Your task to perform on an android device: change the clock display to digital Image 0: 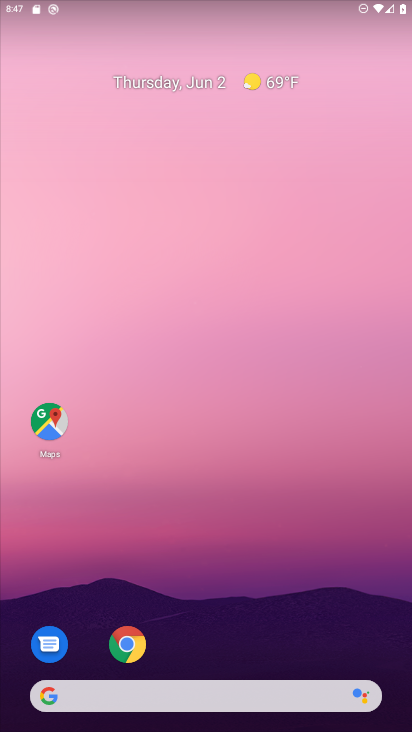
Step 0: drag from (262, 557) to (125, 15)
Your task to perform on an android device: change the clock display to digital Image 1: 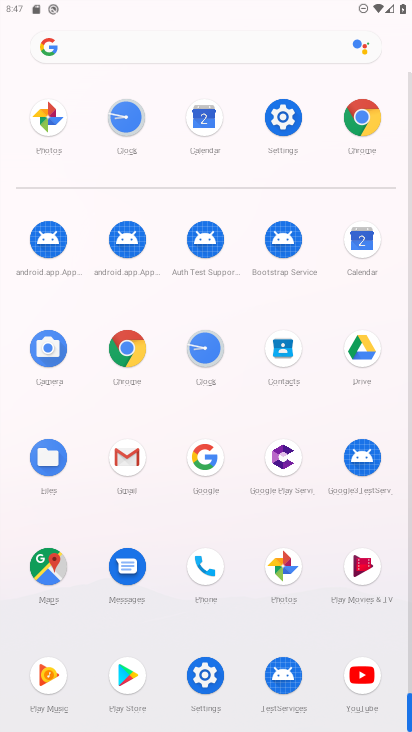
Step 1: click (206, 344)
Your task to perform on an android device: change the clock display to digital Image 2: 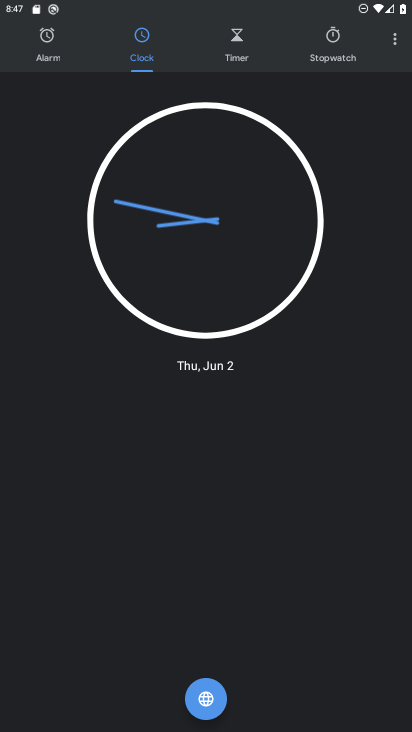
Step 2: drag from (393, 37) to (307, 72)
Your task to perform on an android device: change the clock display to digital Image 3: 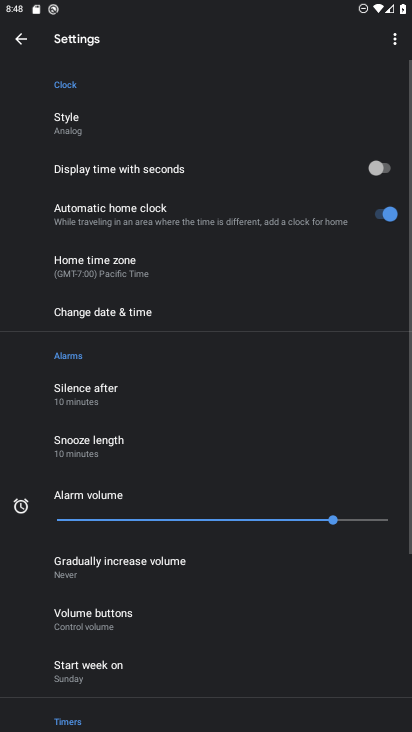
Step 3: click (86, 116)
Your task to perform on an android device: change the clock display to digital Image 4: 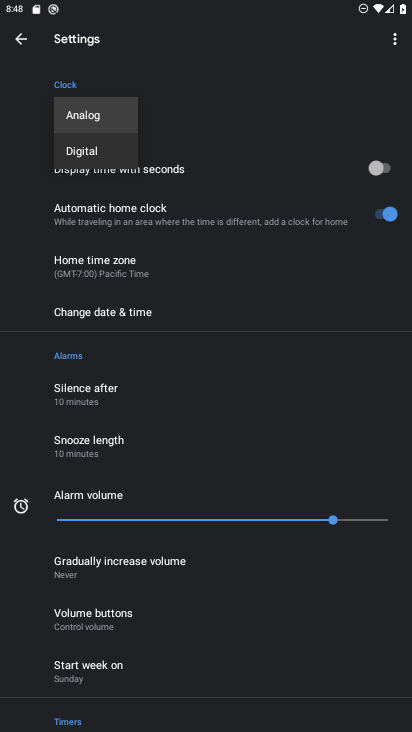
Step 4: click (86, 149)
Your task to perform on an android device: change the clock display to digital Image 5: 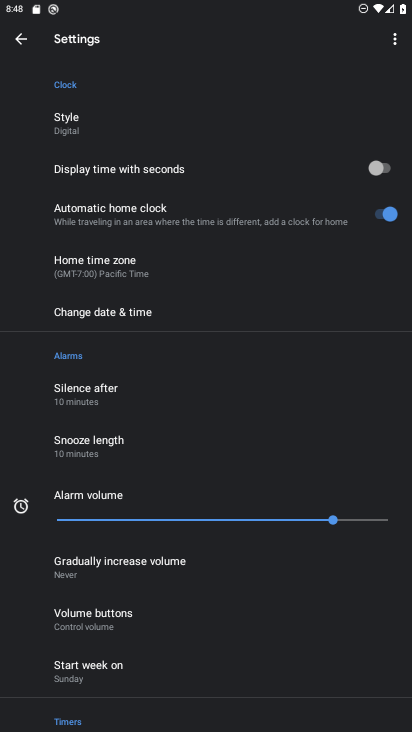
Step 5: task complete